Your task to perform on an android device: Open Maps and search for coffee Image 0: 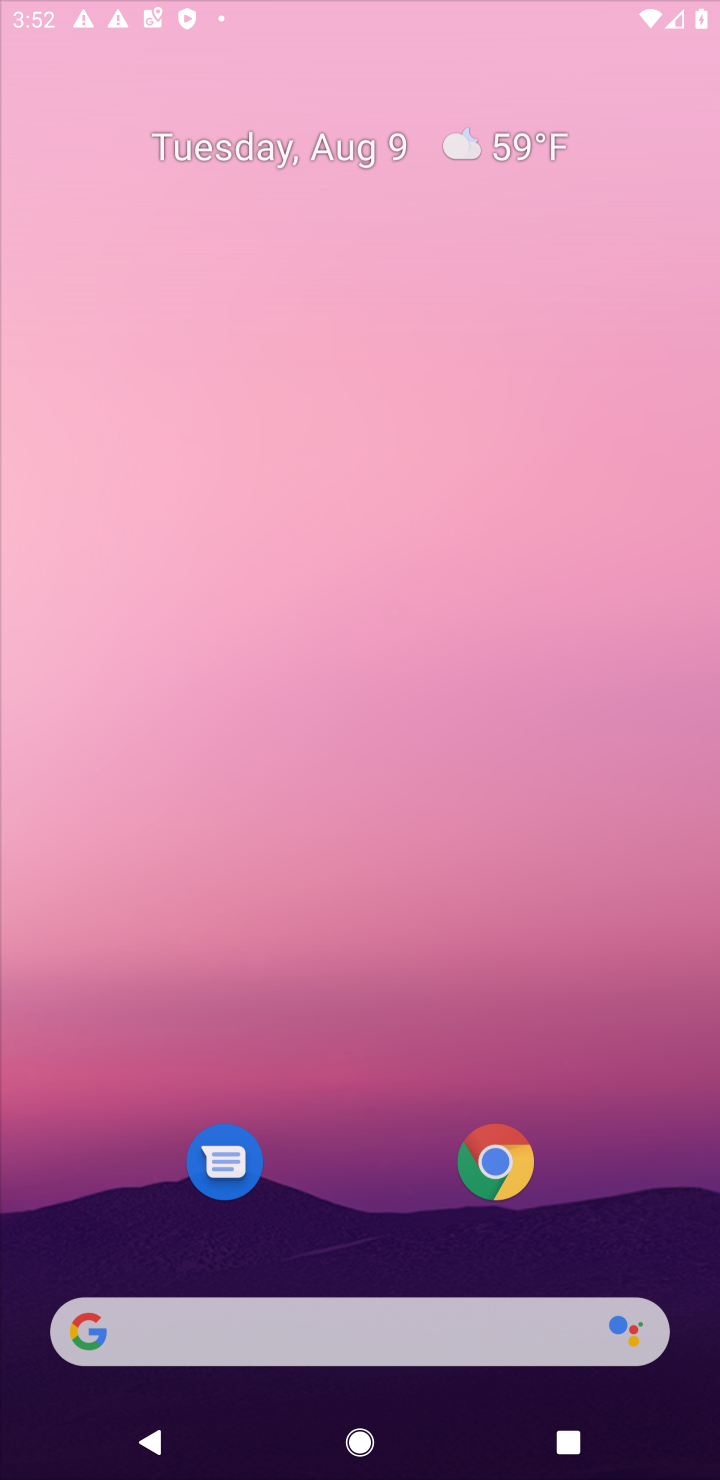
Step 0: press home button
Your task to perform on an android device: Open Maps and search for coffee Image 1: 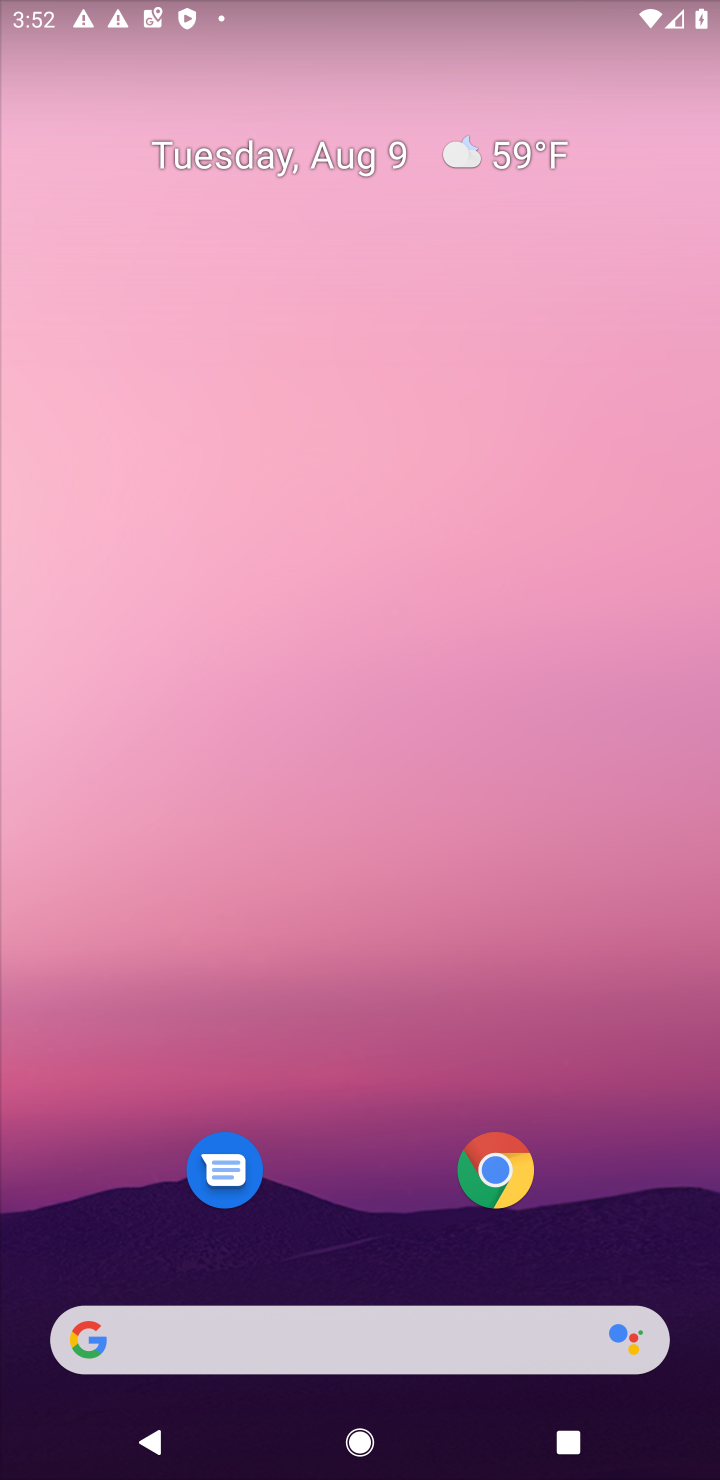
Step 1: drag from (341, 1116) to (339, 85)
Your task to perform on an android device: Open Maps and search for coffee Image 2: 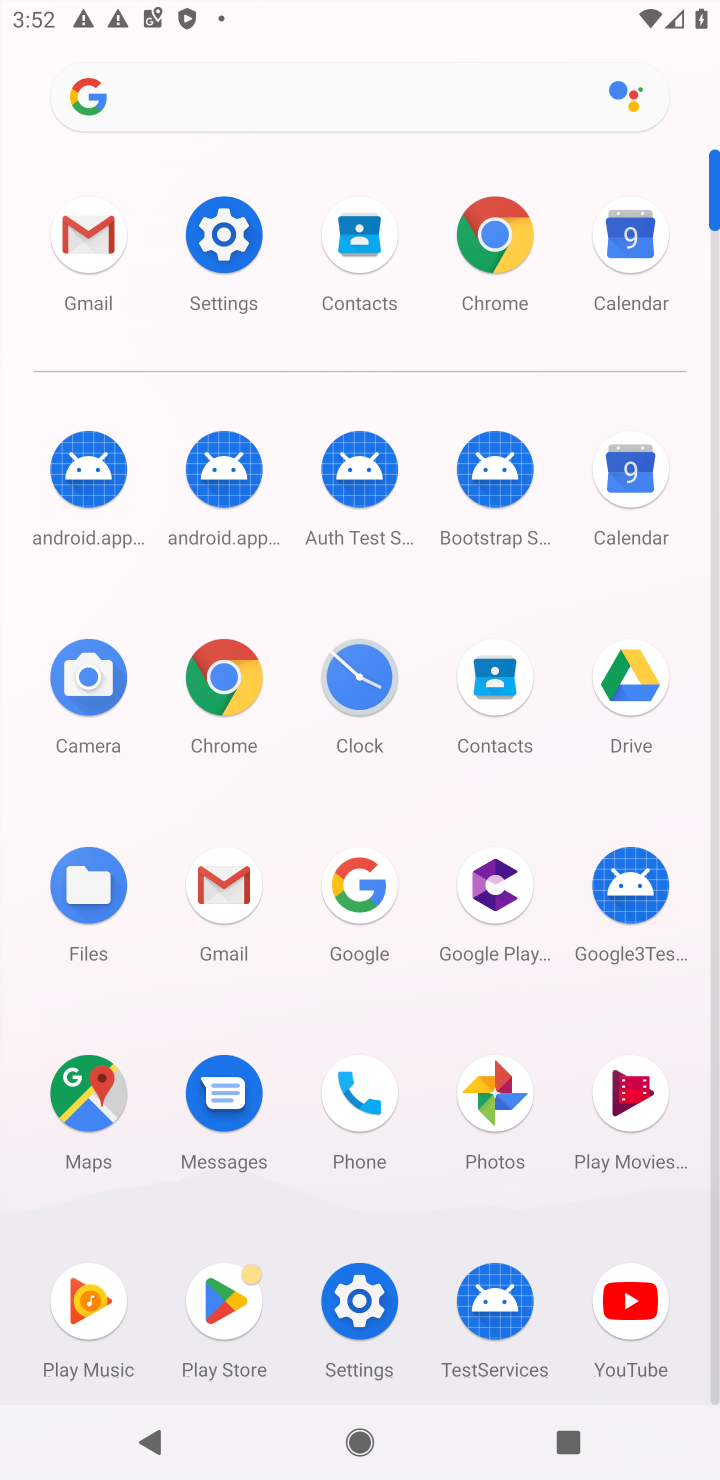
Step 2: click (79, 1088)
Your task to perform on an android device: Open Maps and search for coffee Image 3: 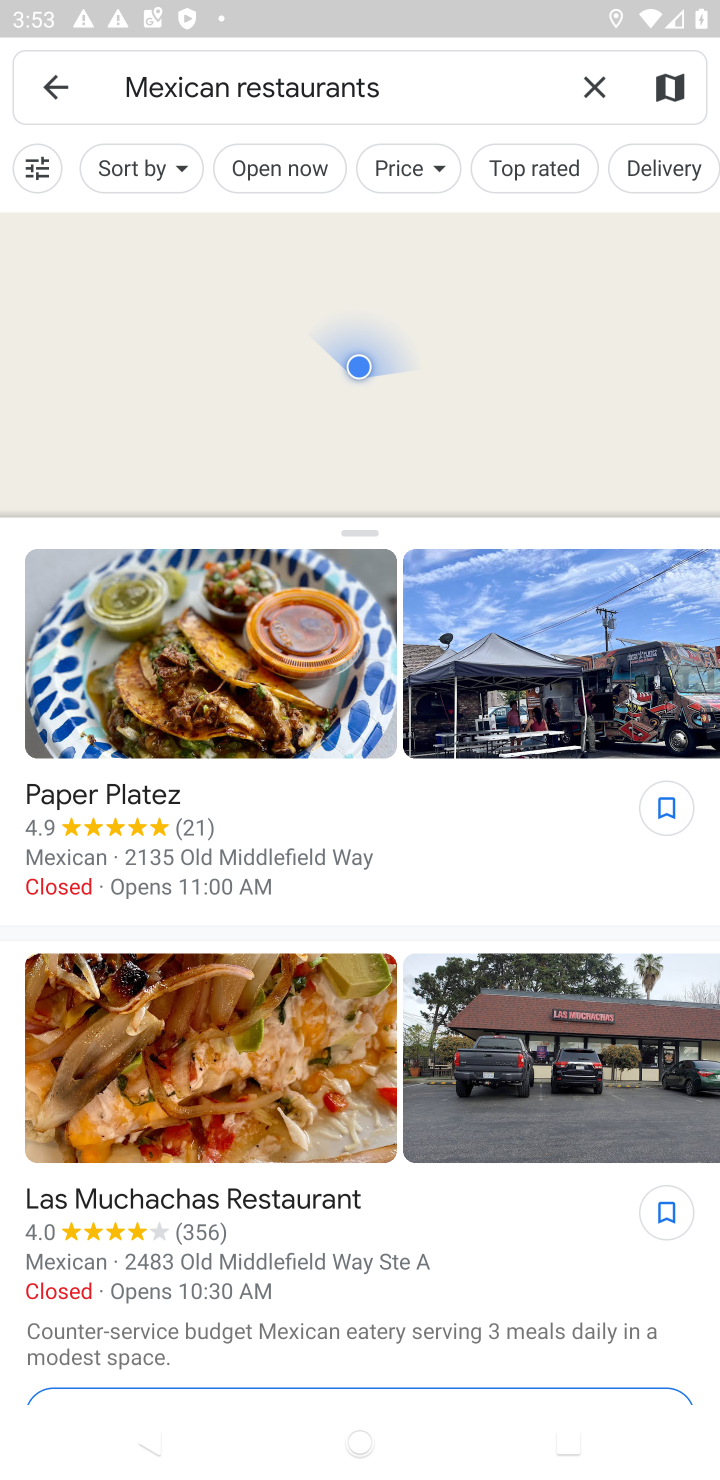
Step 3: click (41, 88)
Your task to perform on an android device: Open Maps and search for coffee Image 4: 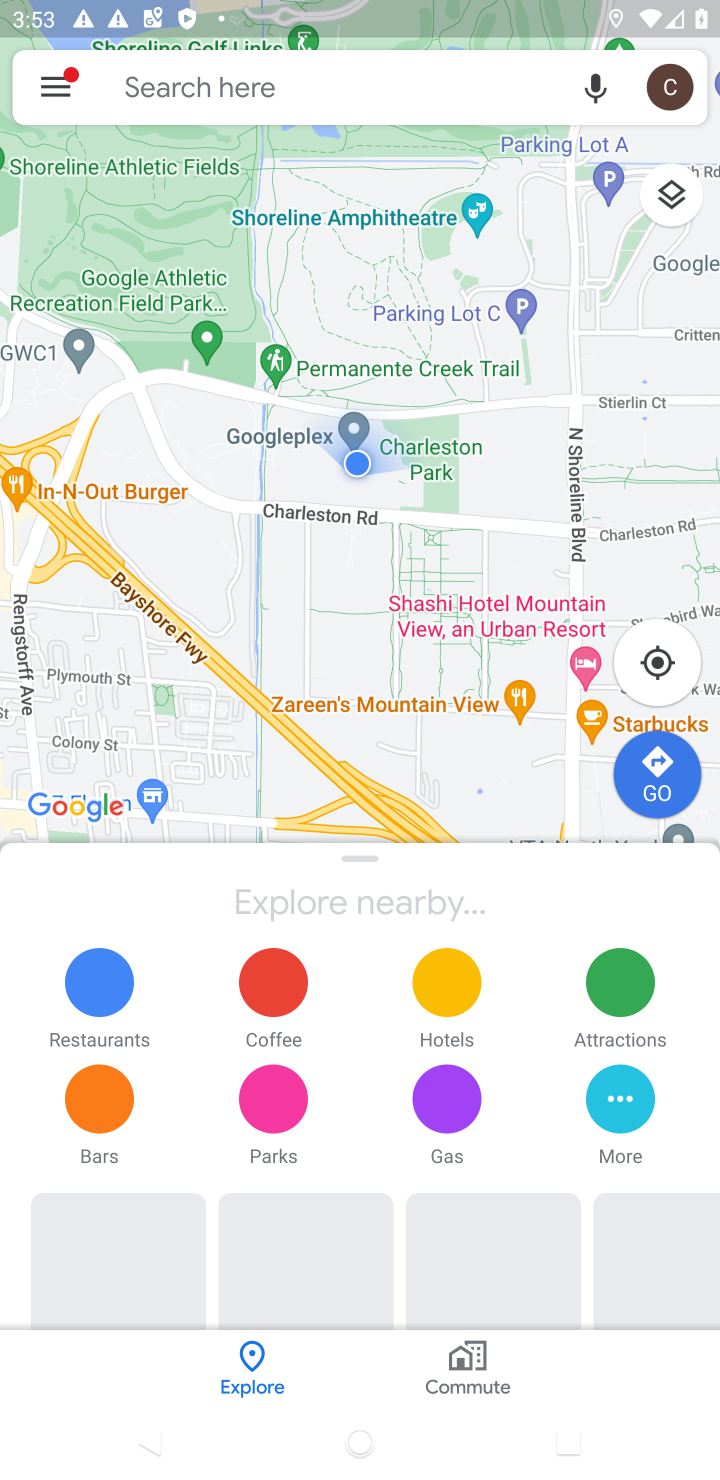
Step 4: click (209, 83)
Your task to perform on an android device: Open Maps and search for coffee Image 5: 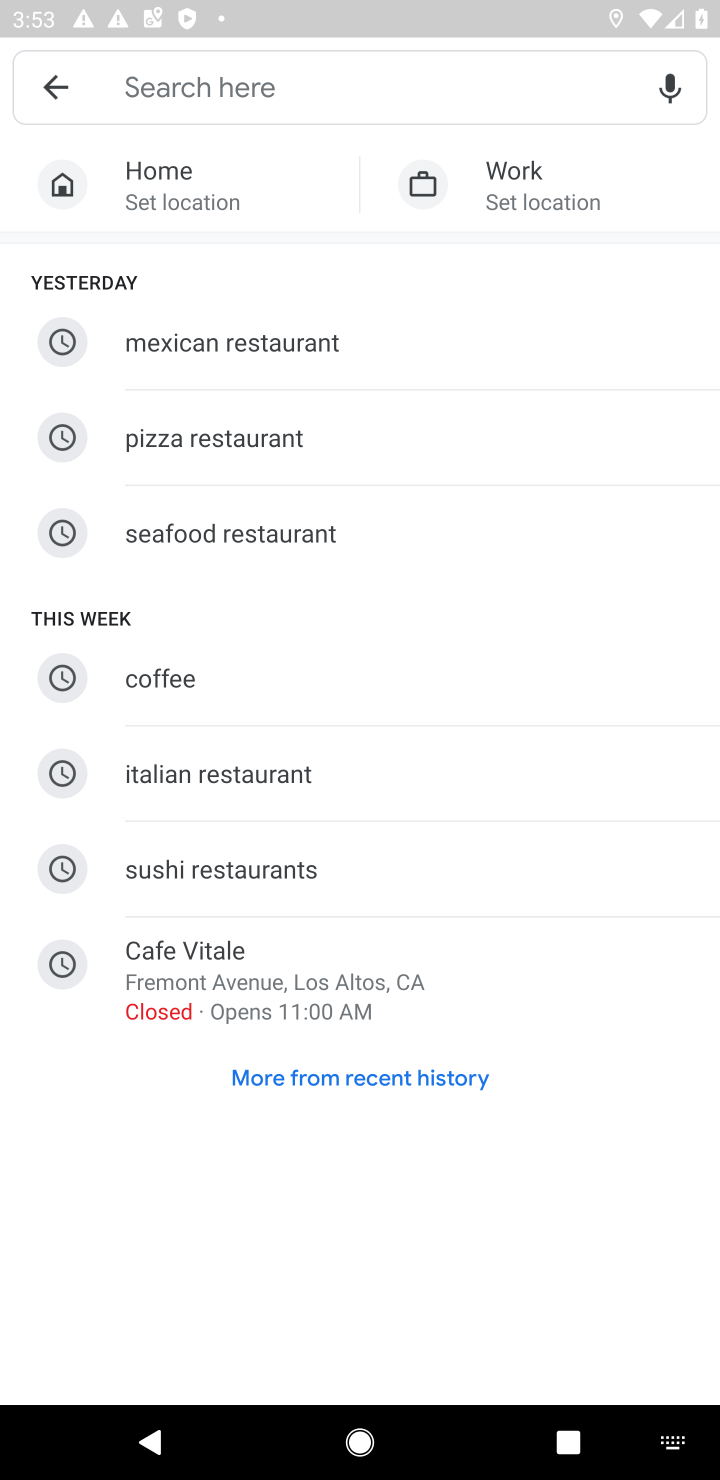
Step 5: type "coffee"
Your task to perform on an android device: Open Maps and search for coffee Image 6: 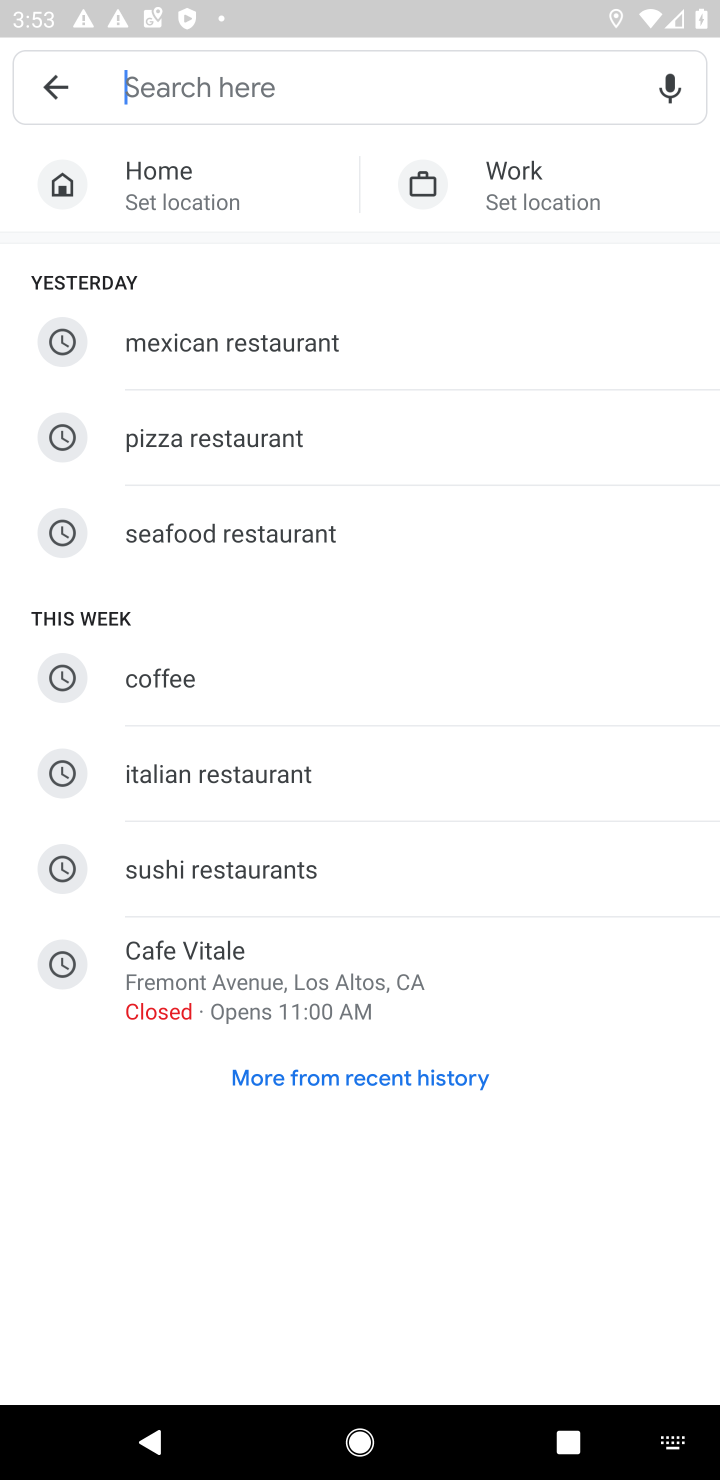
Step 6: click (156, 675)
Your task to perform on an android device: Open Maps and search for coffee Image 7: 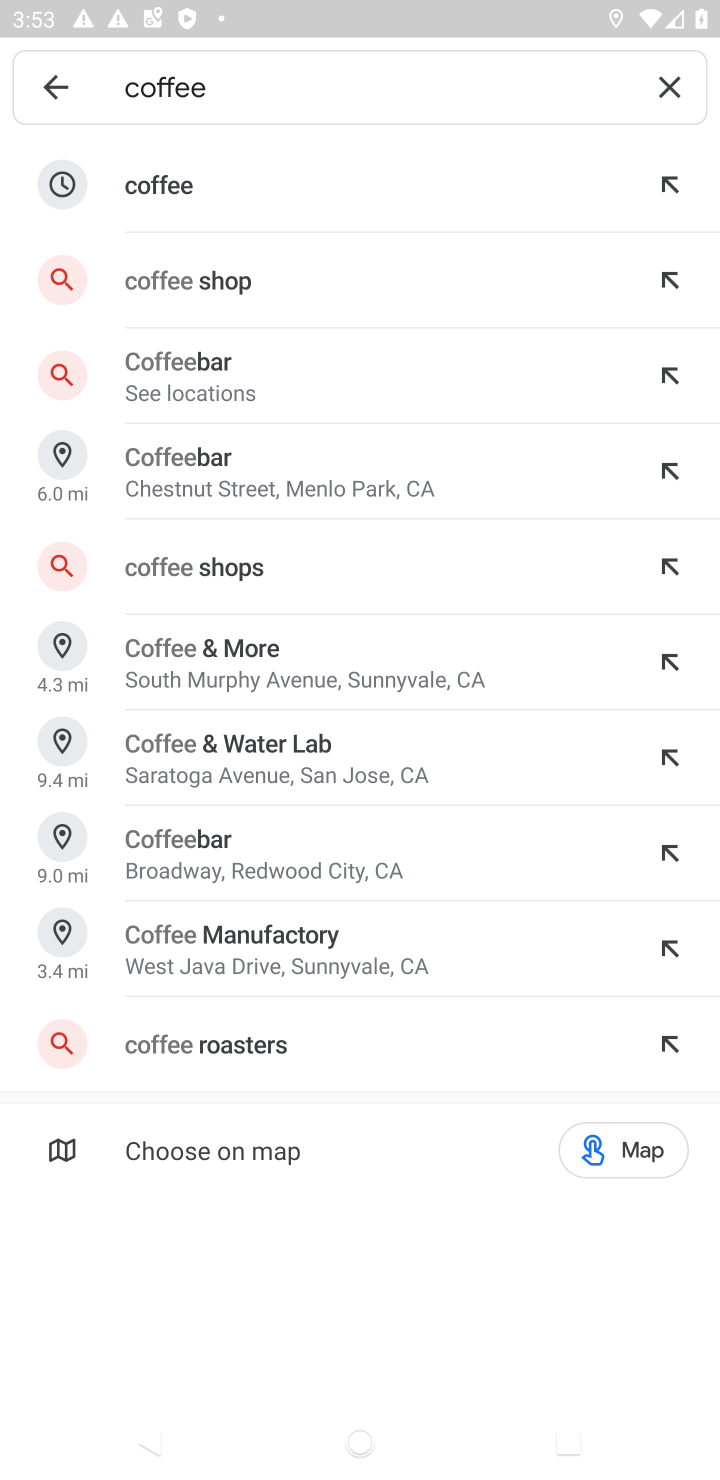
Step 7: click (167, 182)
Your task to perform on an android device: Open Maps and search for coffee Image 8: 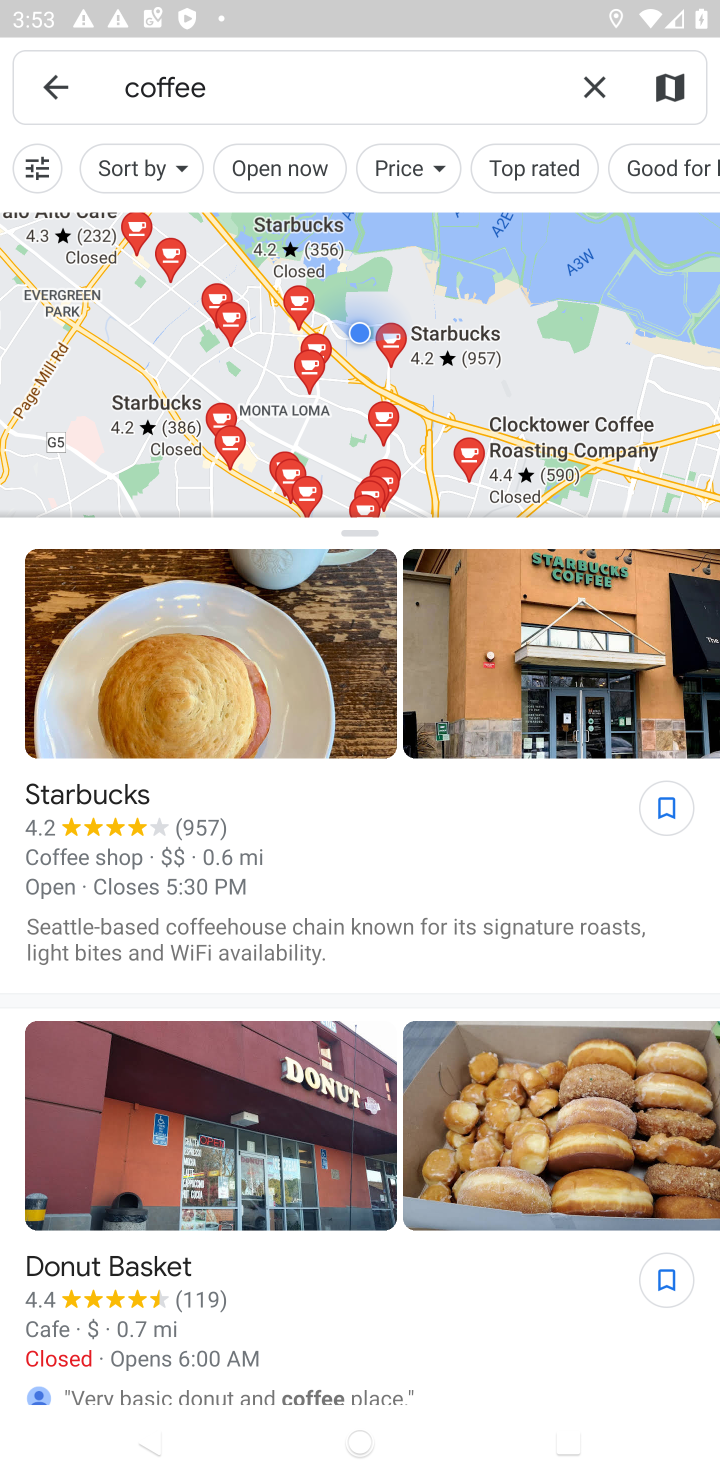
Step 8: task complete